Your task to perform on an android device: Search for "dell alienware" on walmart, select the first entry, and add it to the cart. Image 0: 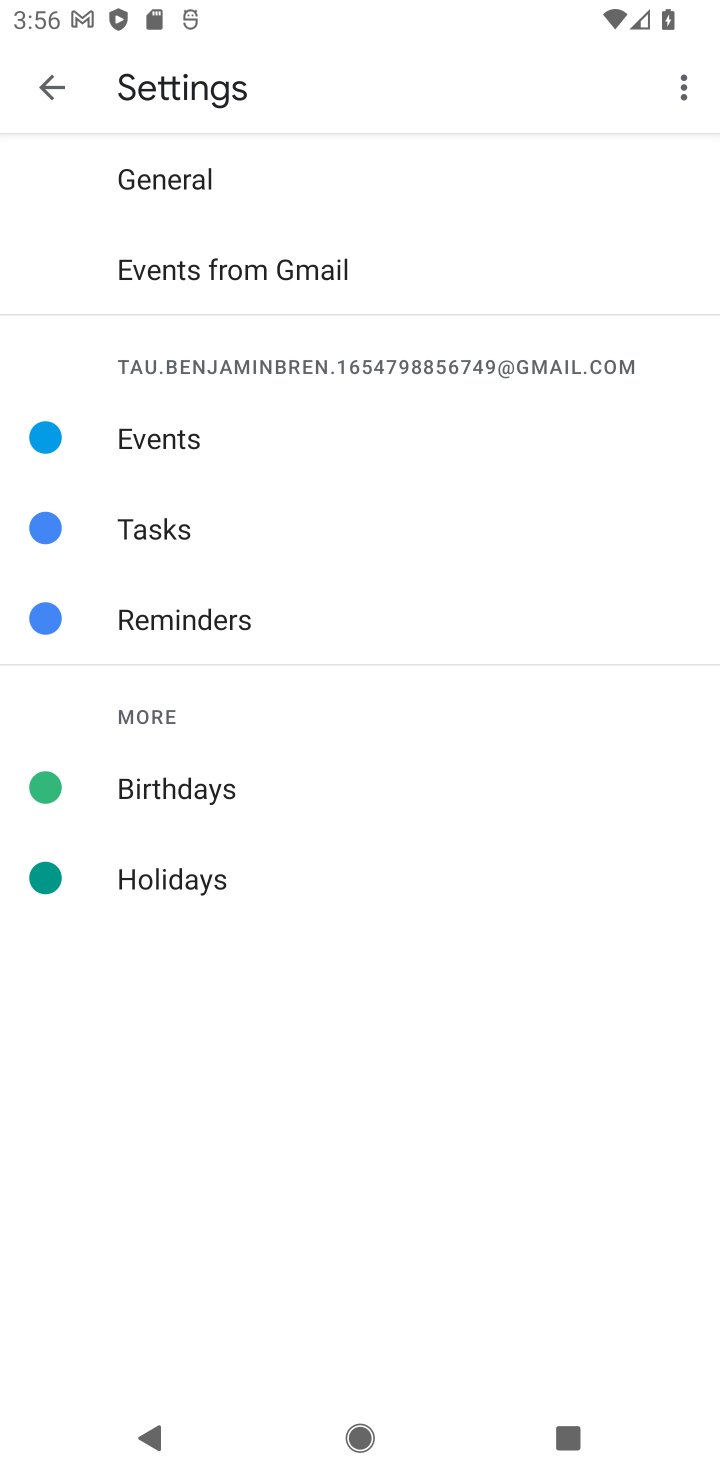
Step 0: press home button
Your task to perform on an android device: Search for "dell alienware" on walmart, select the first entry, and add it to the cart. Image 1: 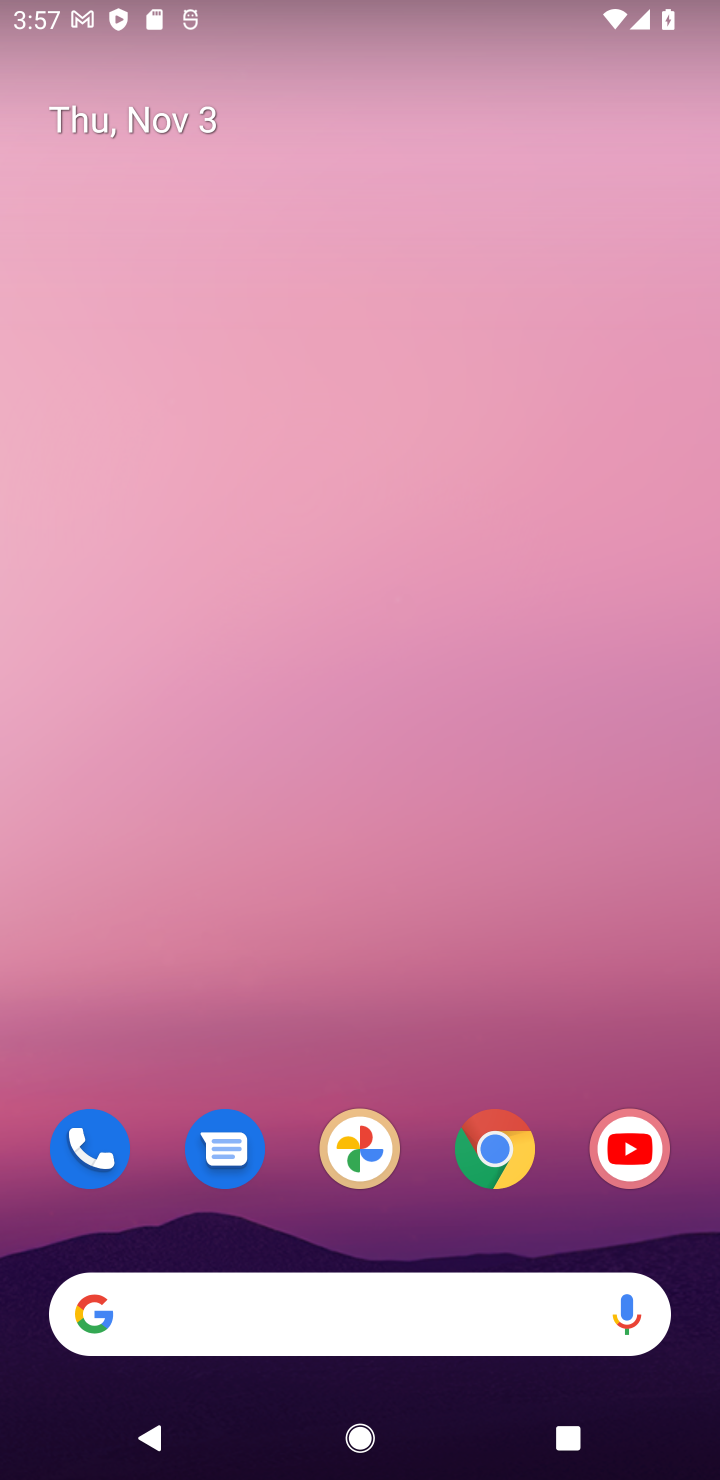
Step 1: click (266, 107)
Your task to perform on an android device: Search for "dell alienware" on walmart, select the first entry, and add it to the cart. Image 2: 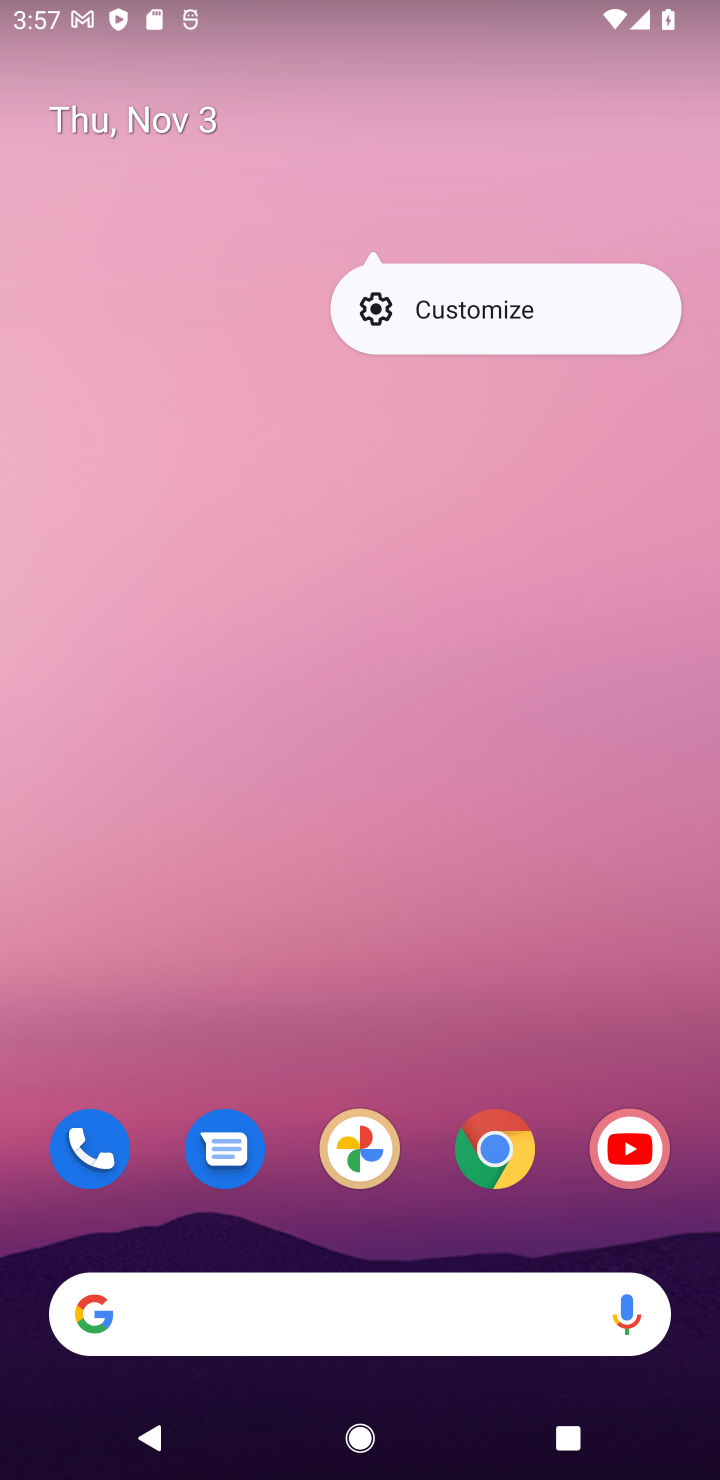
Step 2: click (488, 1135)
Your task to perform on an android device: Search for "dell alienware" on walmart, select the first entry, and add it to the cart. Image 3: 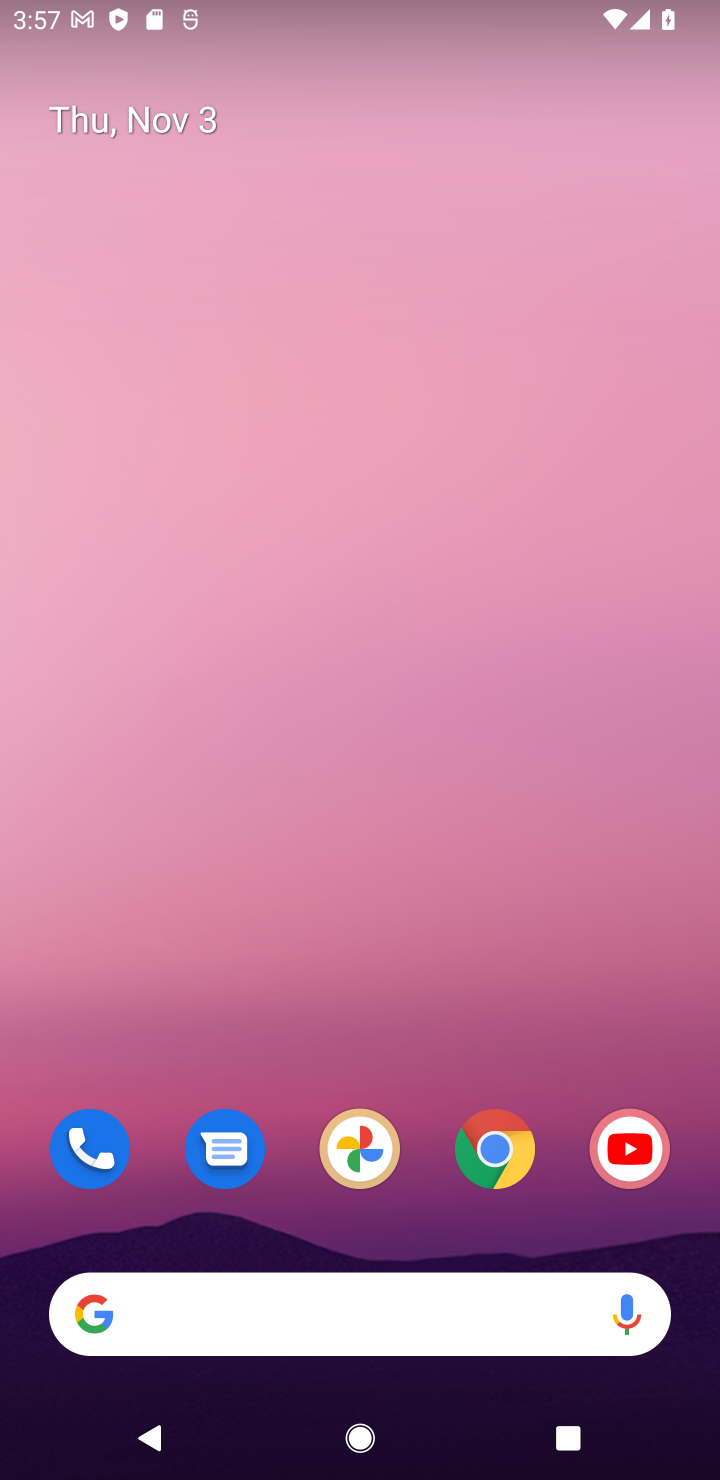
Step 3: click (497, 1158)
Your task to perform on an android device: Search for "dell alienware" on walmart, select the first entry, and add it to the cart. Image 4: 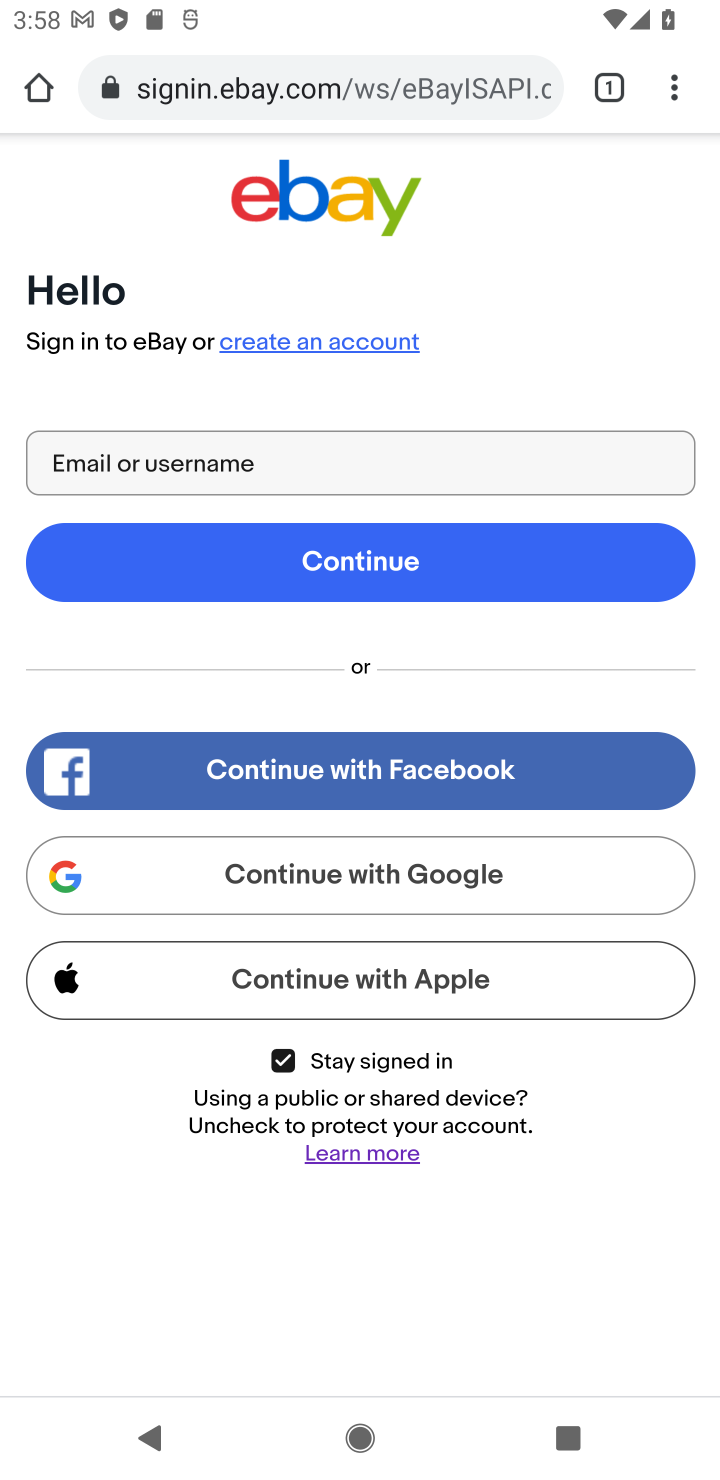
Step 4: click (259, 91)
Your task to perform on an android device: Search for "dell alienware" on walmart, select the first entry, and add it to the cart. Image 5: 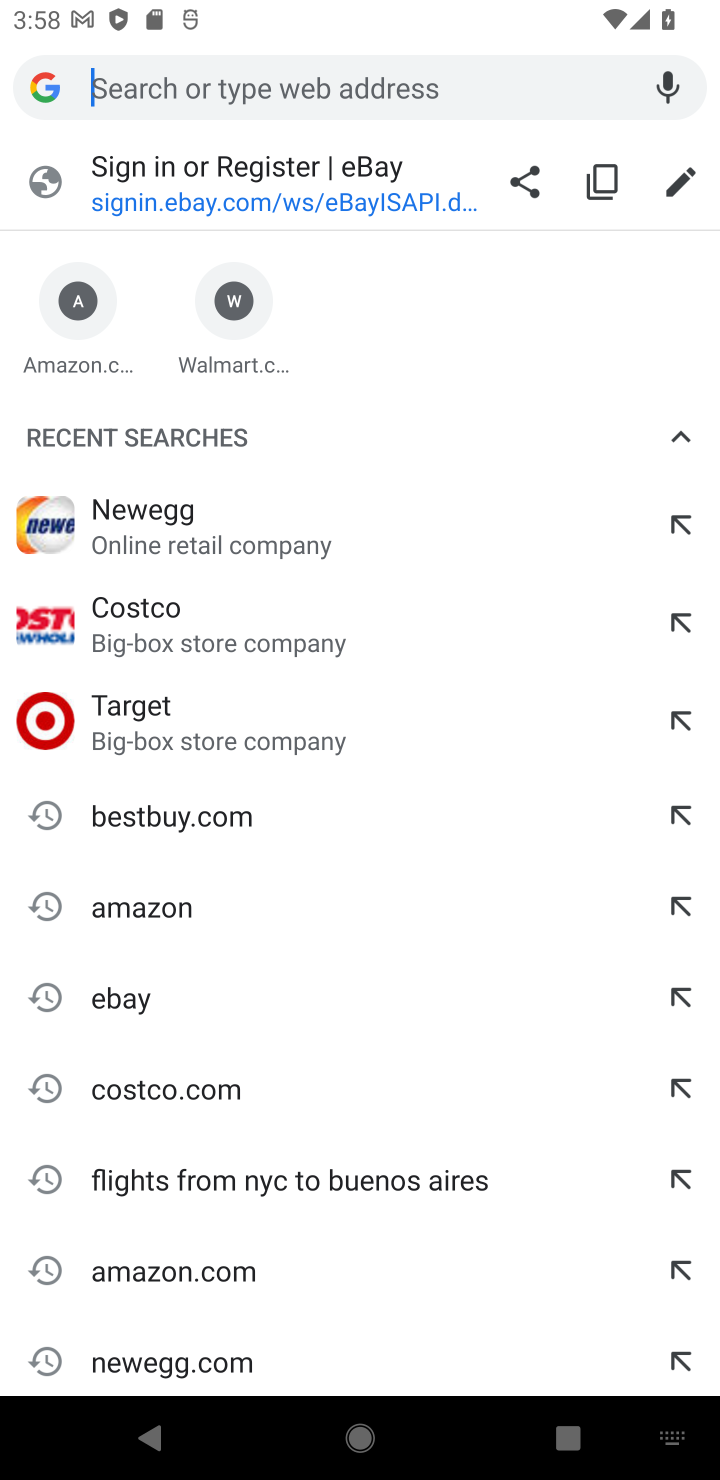
Step 5: type "walmart"
Your task to perform on an android device: Search for "dell alienware" on walmart, select the first entry, and add it to the cart. Image 6: 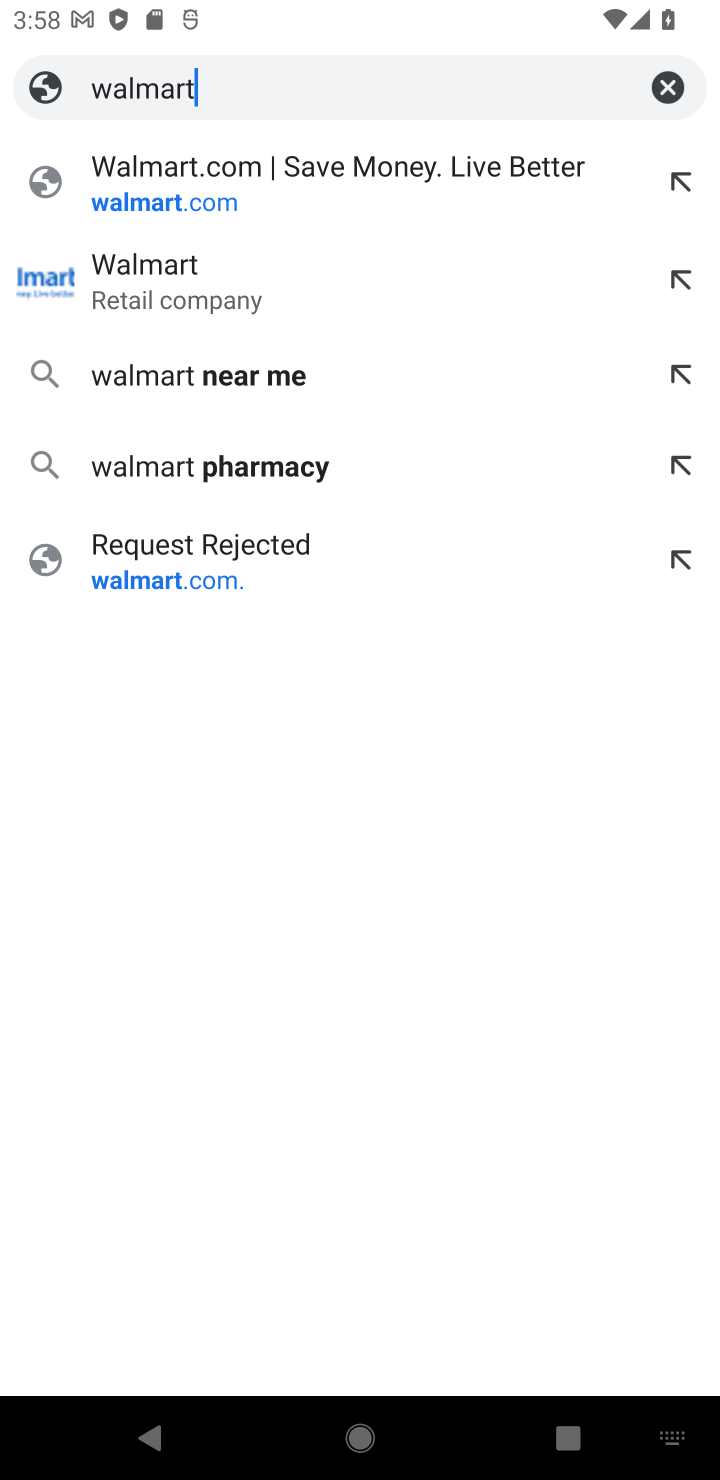
Step 6: click (400, 293)
Your task to perform on an android device: Search for "dell alienware" on walmart, select the first entry, and add it to the cart. Image 7: 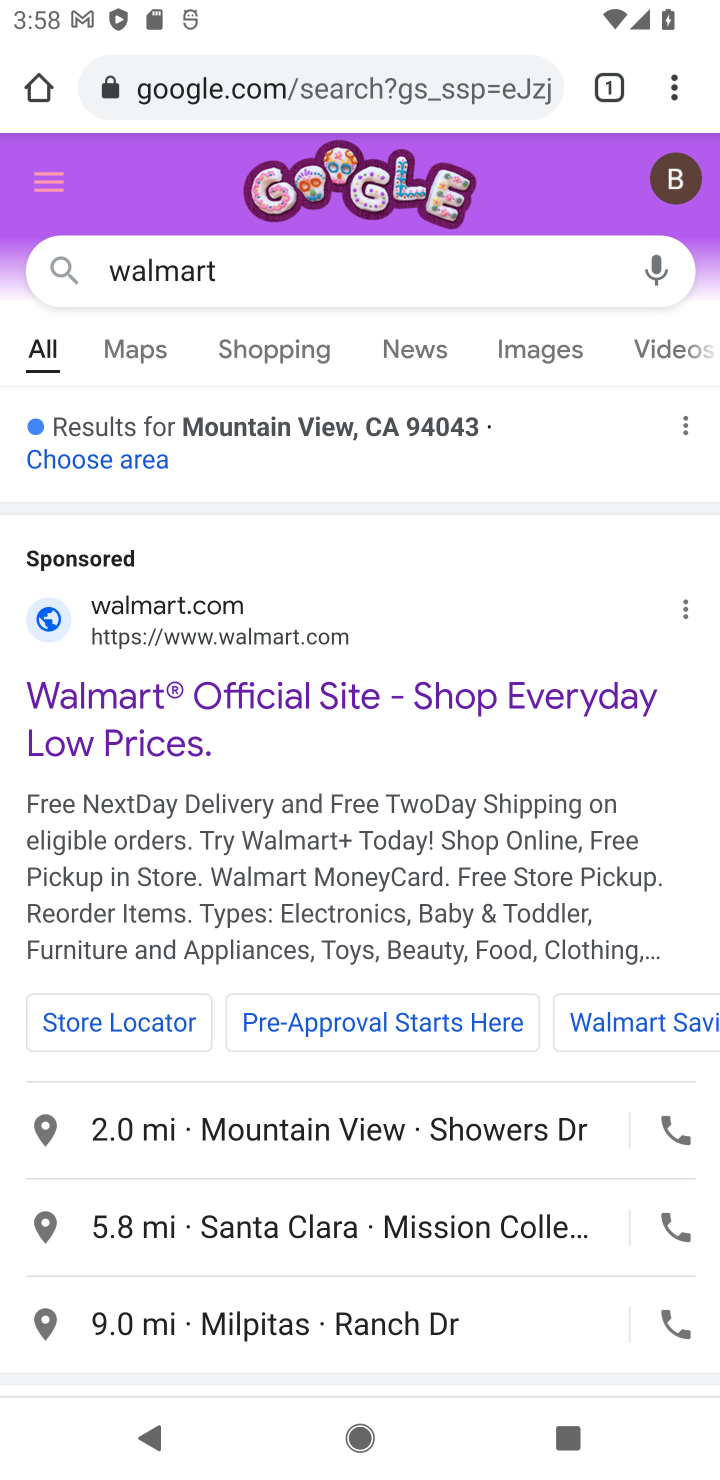
Step 7: click (180, 691)
Your task to perform on an android device: Search for "dell alienware" on walmart, select the first entry, and add it to the cart. Image 8: 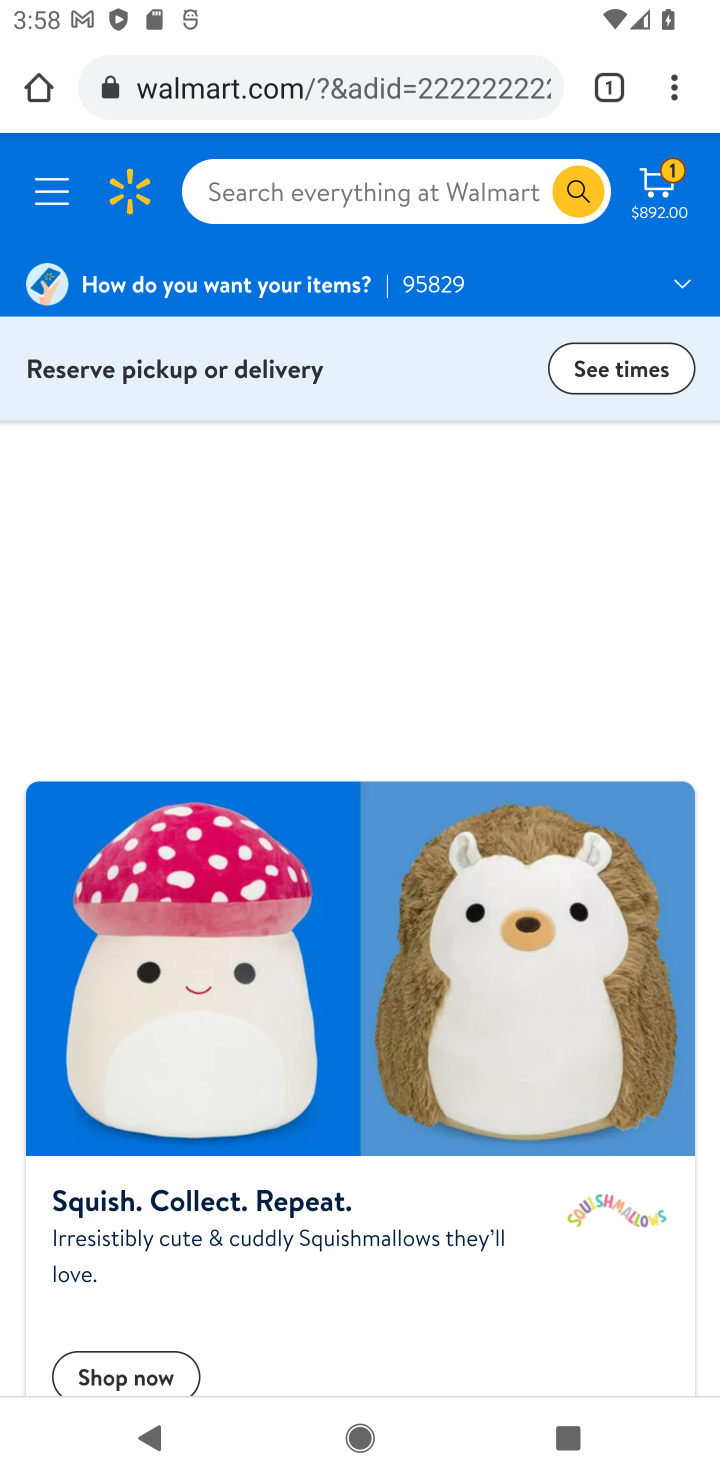
Step 8: click (334, 181)
Your task to perform on an android device: Search for "dell alienware" on walmart, select the first entry, and add it to the cart. Image 9: 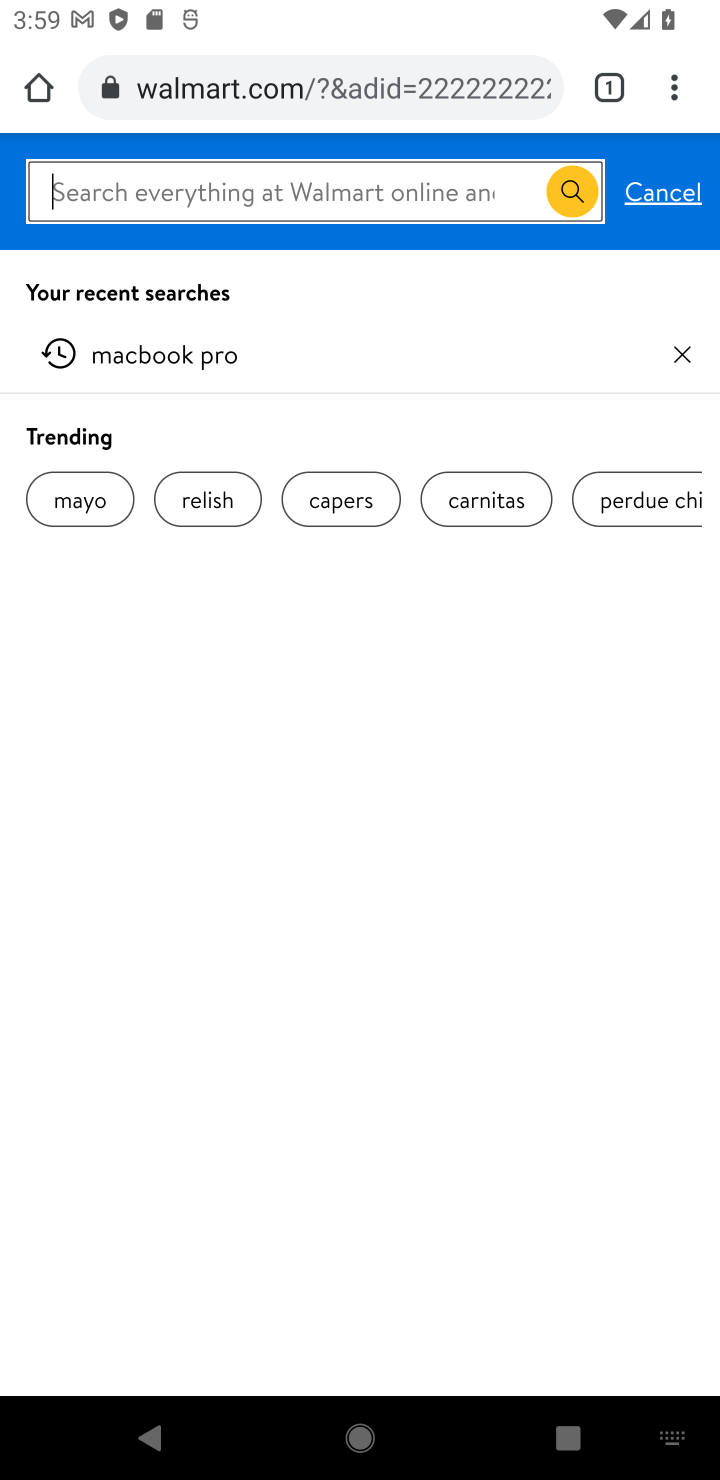
Step 9: type "dell alienware"
Your task to perform on an android device: Search for "dell alienware" on walmart, select the first entry, and add it to the cart. Image 10: 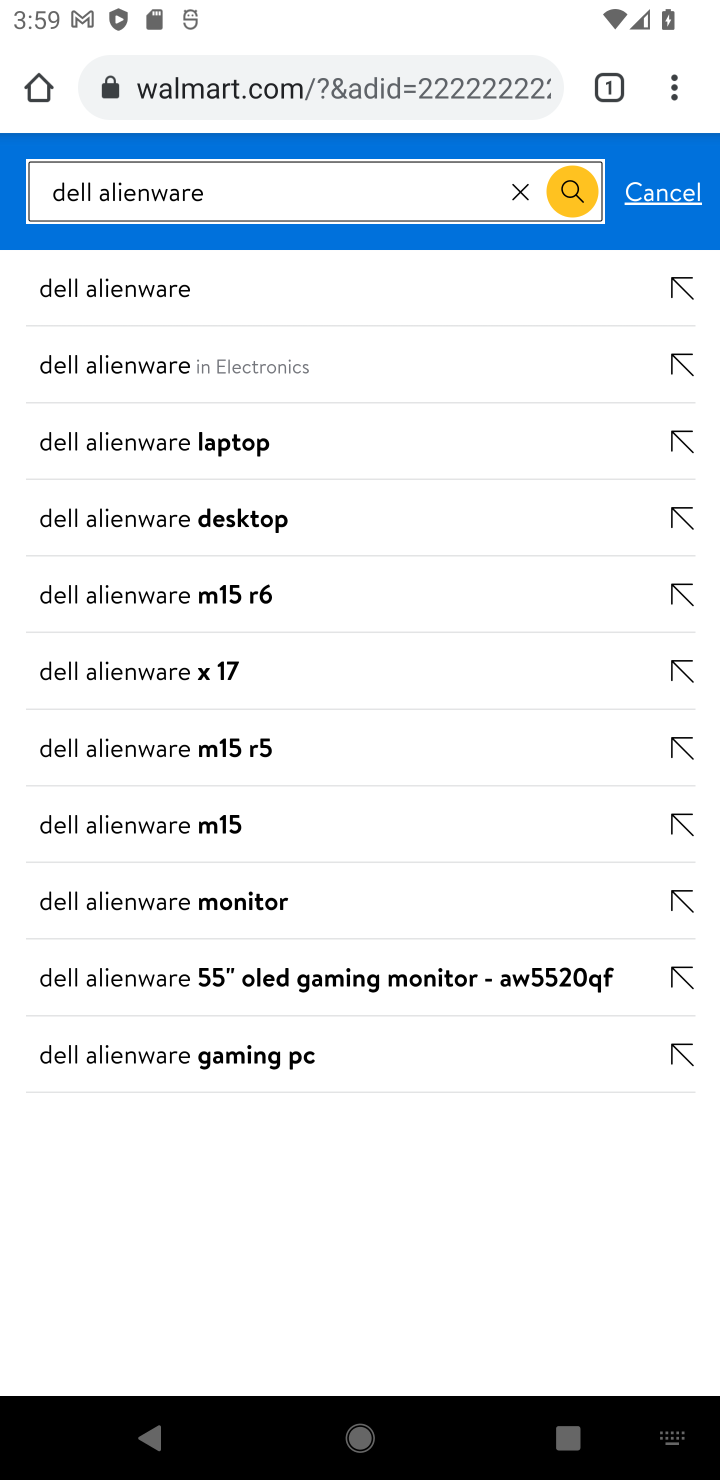
Step 10: click (250, 372)
Your task to perform on an android device: Search for "dell alienware" on walmart, select the first entry, and add it to the cart. Image 11: 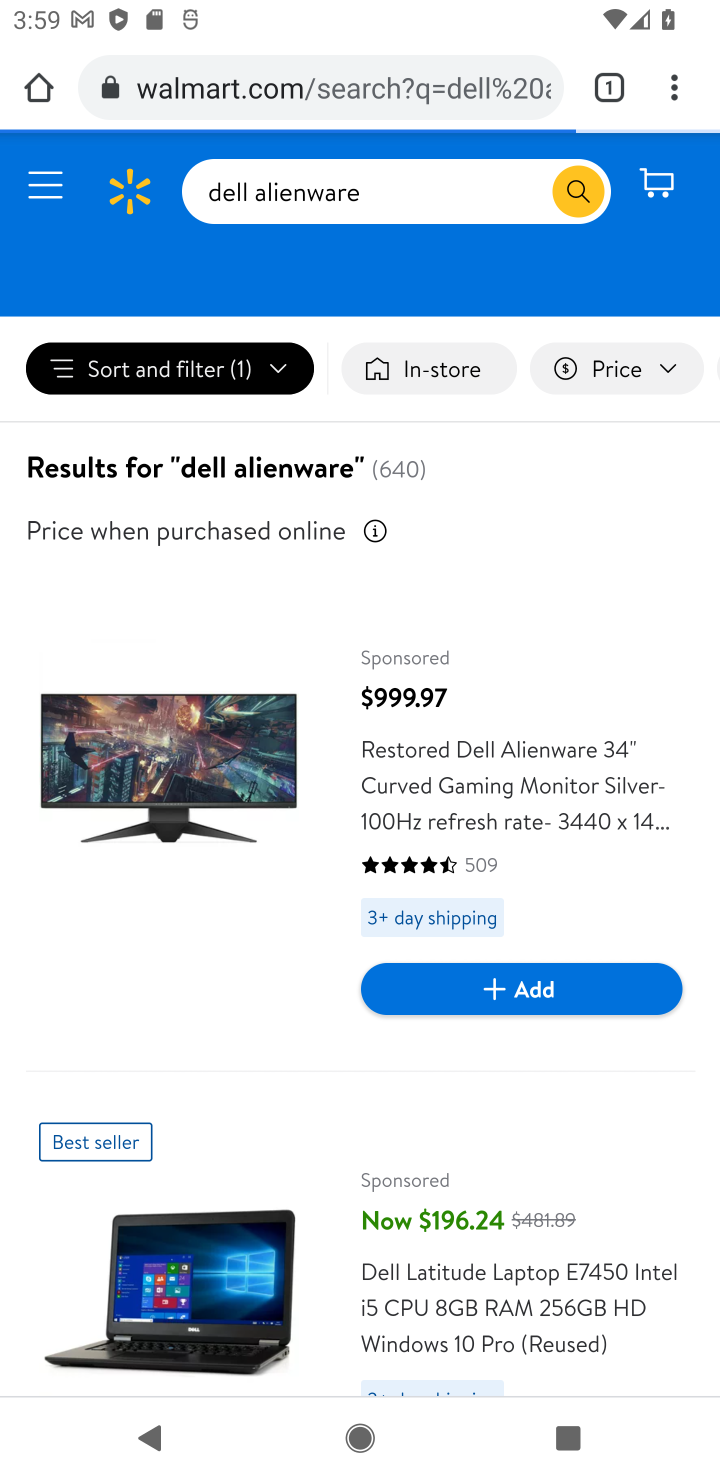
Step 11: click (250, 372)
Your task to perform on an android device: Search for "dell alienware" on walmart, select the first entry, and add it to the cart. Image 12: 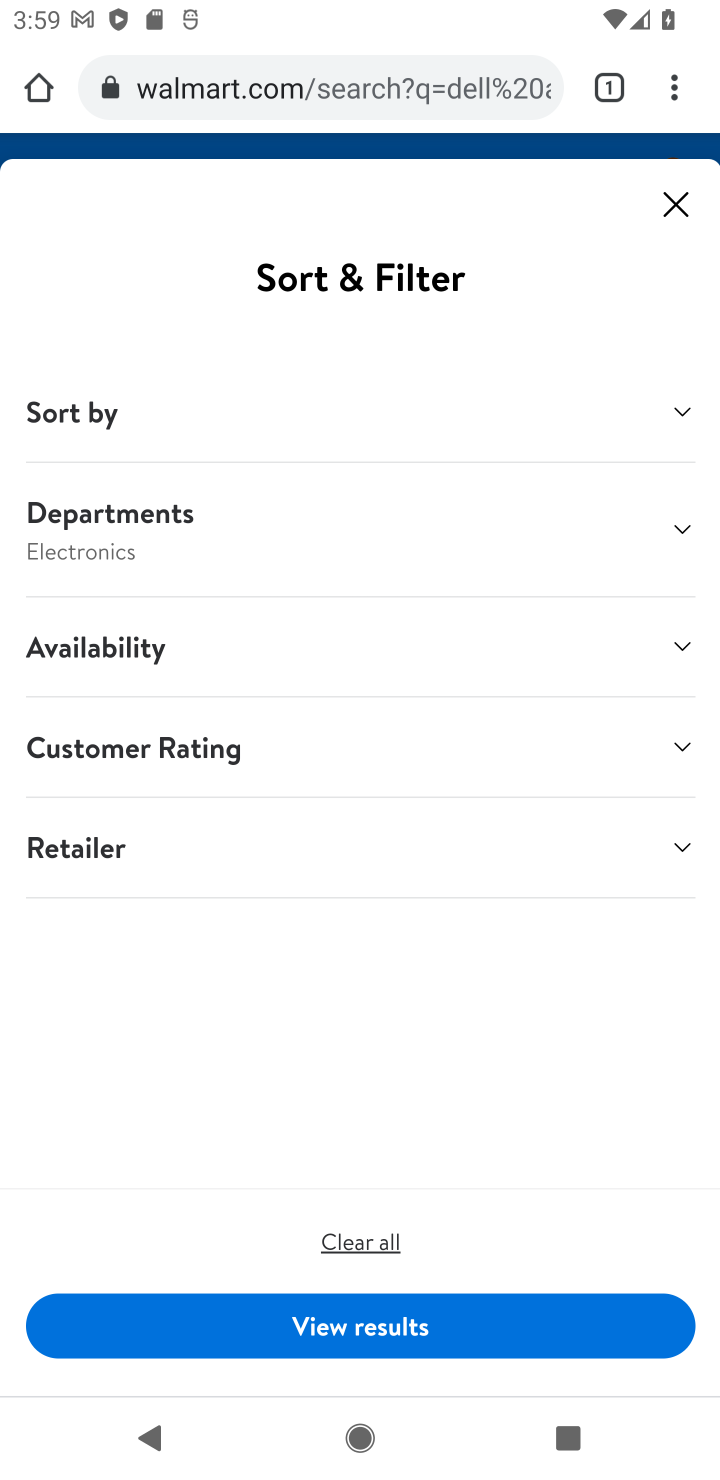
Step 12: click (674, 1003)
Your task to perform on an android device: Search for "dell alienware" on walmart, select the first entry, and add it to the cart. Image 13: 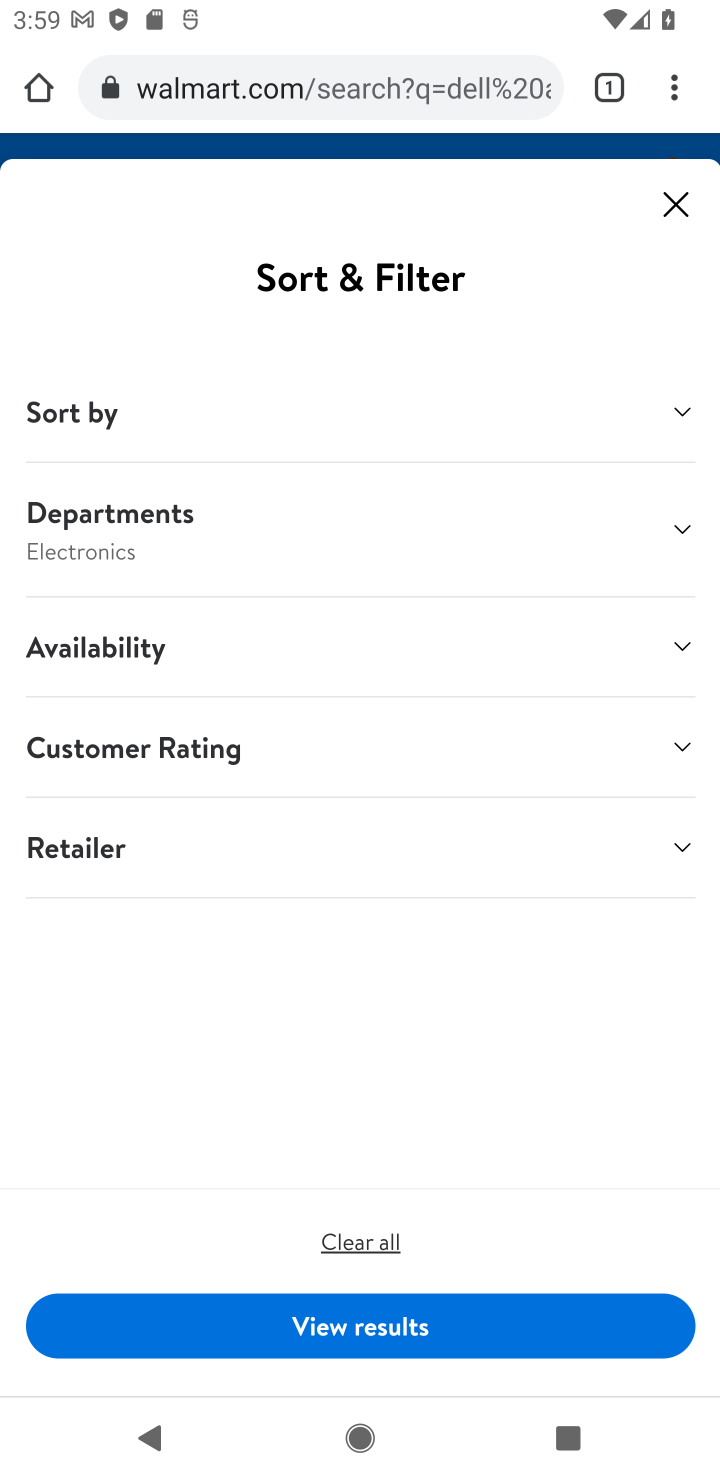
Step 13: click (661, 207)
Your task to perform on an android device: Search for "dell alienware" on walmart, select the first entry, and add it to the cart. Image 14: 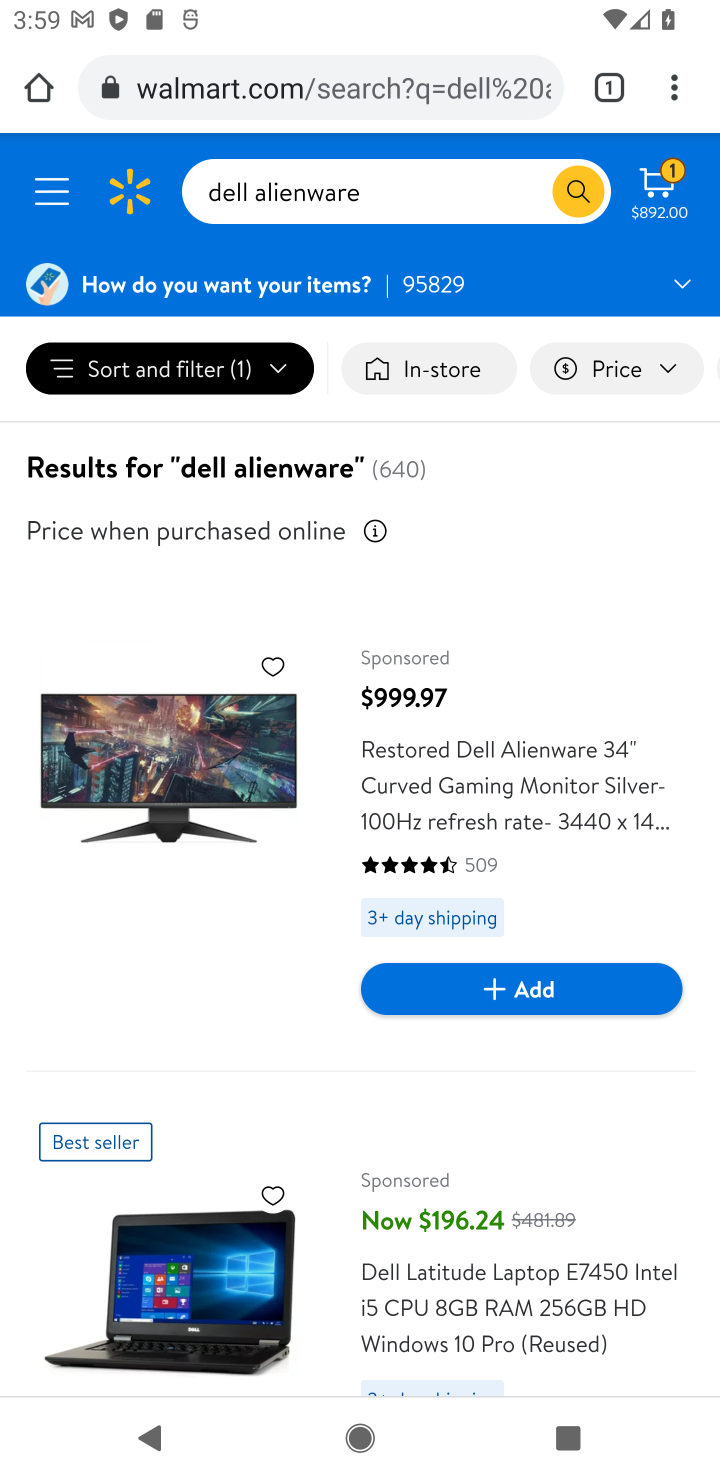
Step 14: drag from (524, 1279) to (418, 419)
Your task to perform on an android device: Search for "dell alienware" on walmart, select the first entry, and add it to the cart. Image 15: 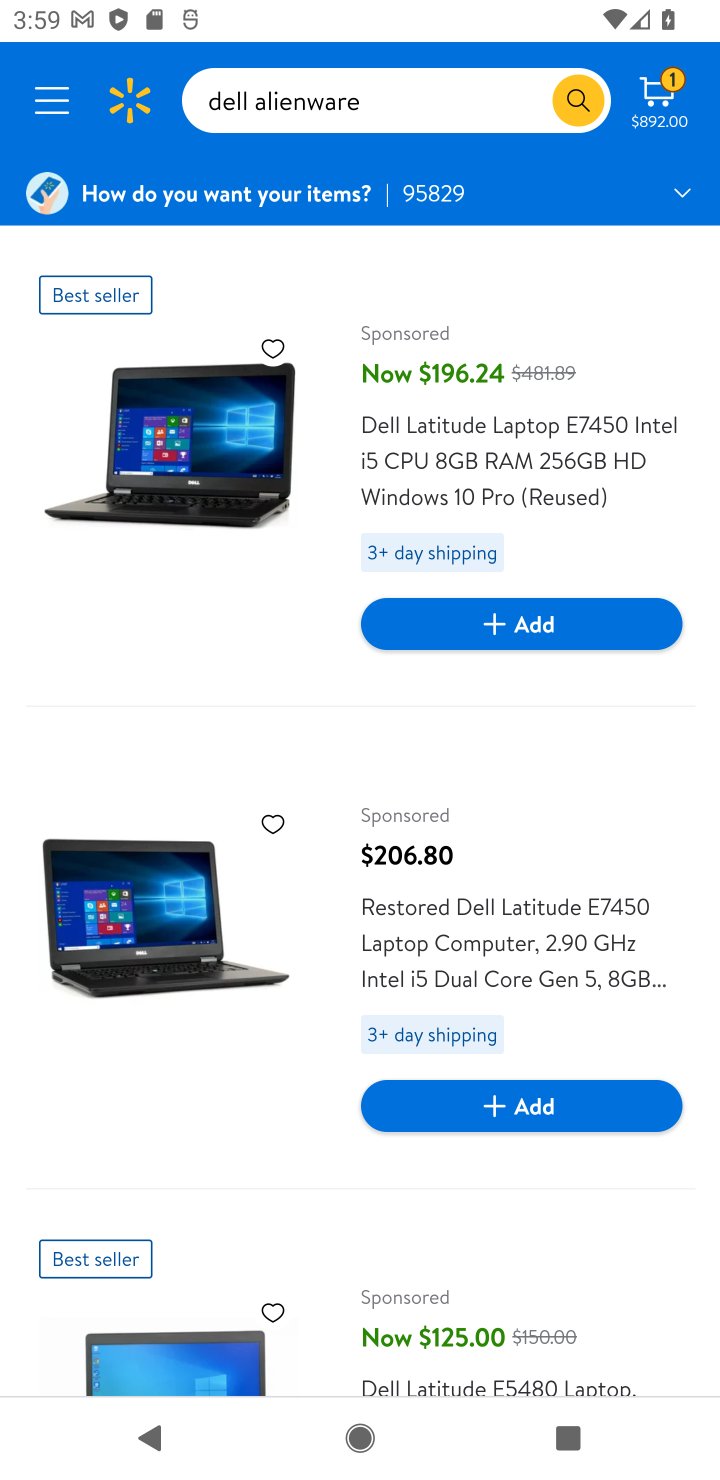
Step 15: drag from (318, 1179) to (292, 572)
Your task to perform on an android device: Search for "dell alienware" on walmart, select the first entry, and add it to the cart. Image 16: 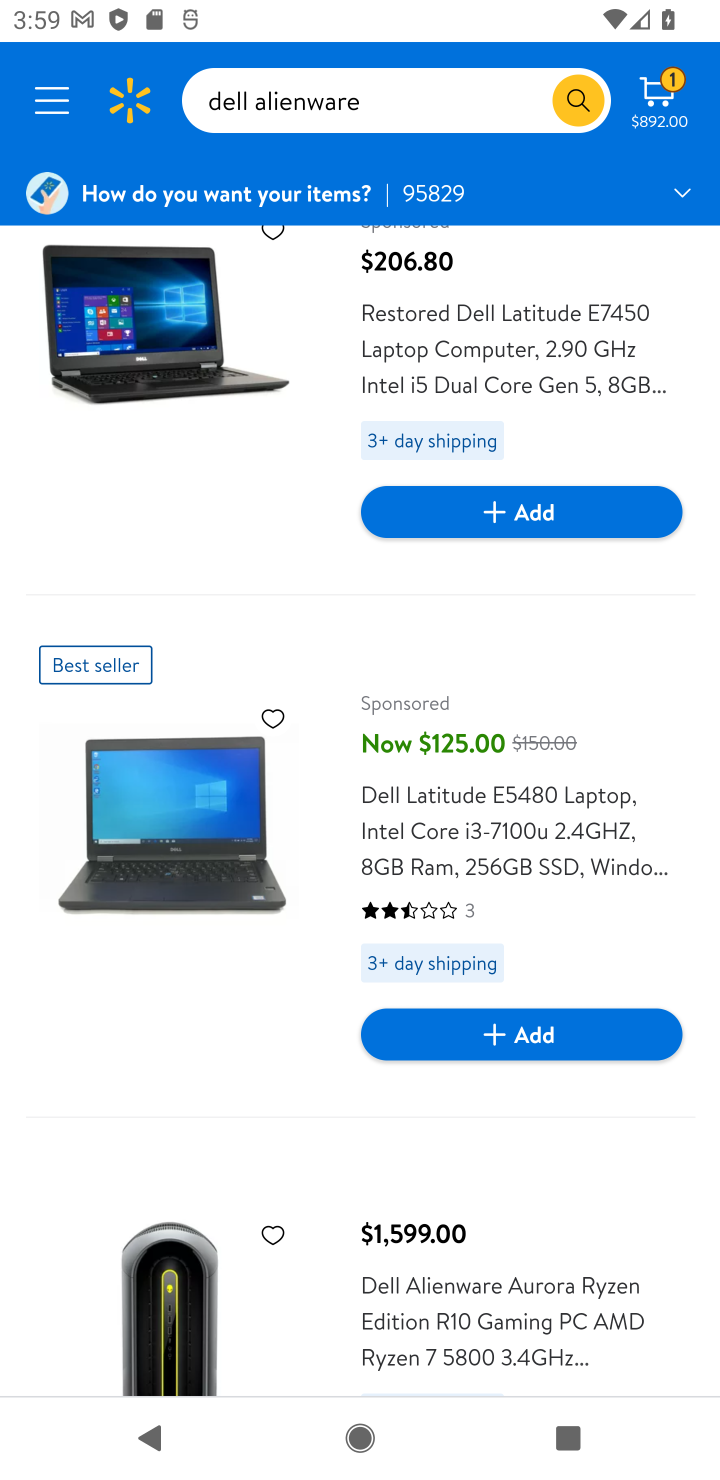
Step 16: click (428, 1291)
Your task to perform on an android device: Search for "dell alienware" on walmart, select the first entry, and add it to the cart. Image 17: 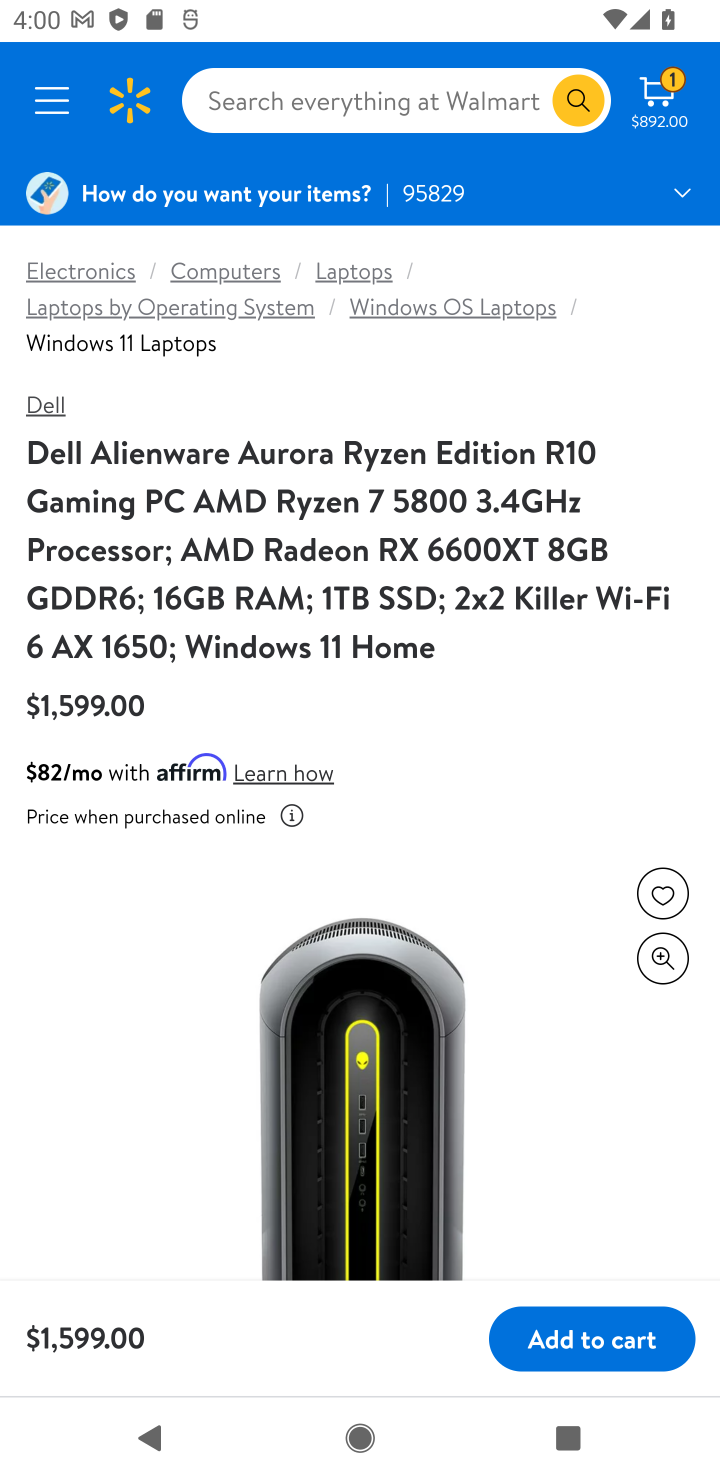
Step 17: click (583, 1342)
Your task to perform on an android device: Search for "dell alienware" on walmart, select the first entry, and add it to the cart. Image 18: 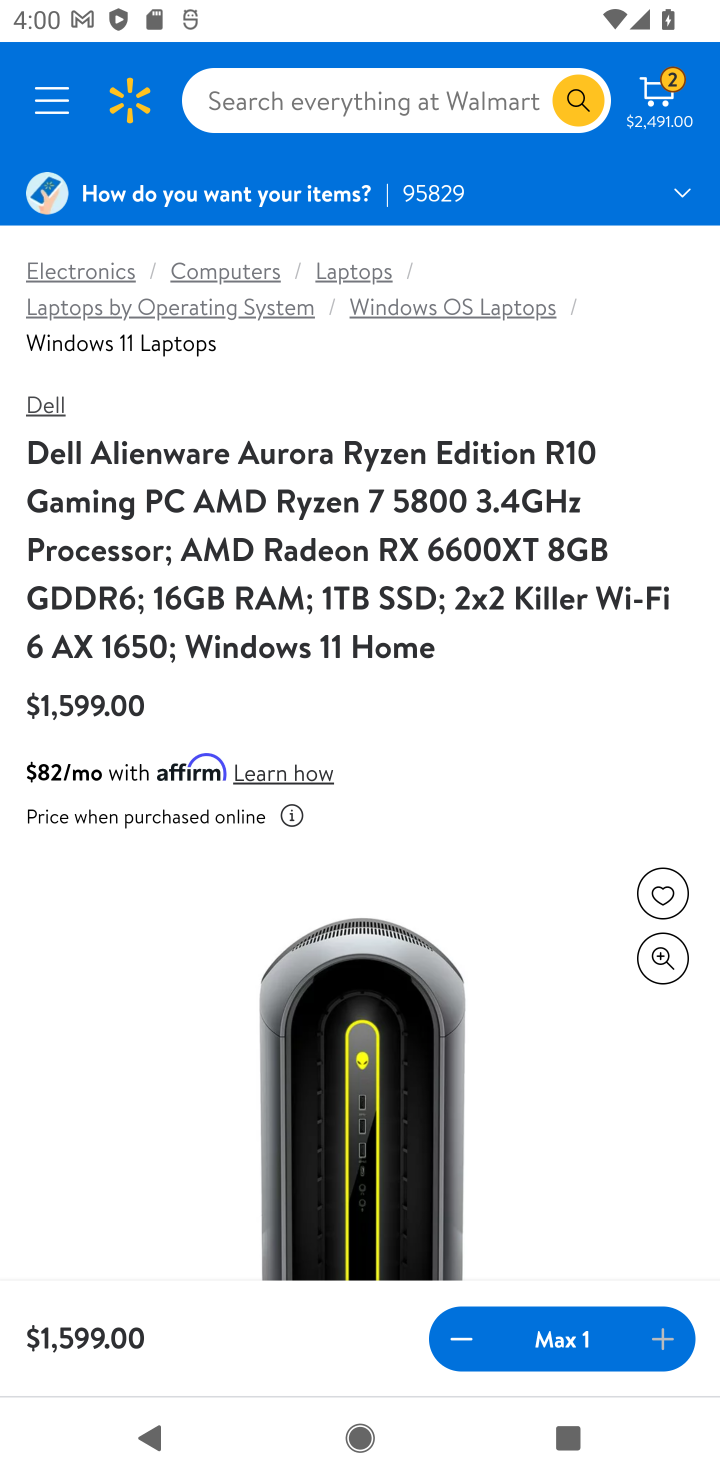
Step 18: click (661, 93)
Your task to perform on an android device: Search for "dell alienware" on walmart, select the first entry, and add it to the cart. Image 19: 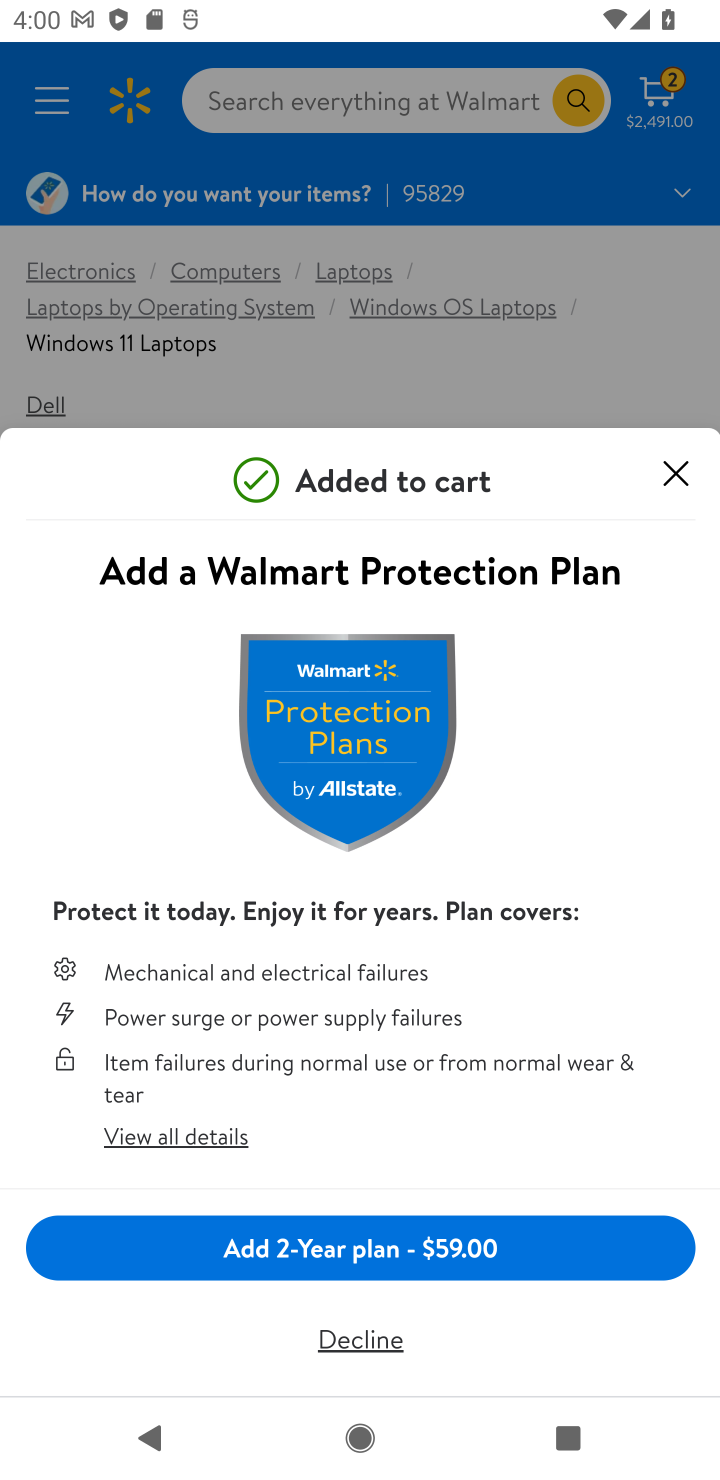
Step 19: task complete